Your task to perform on an android device: open app "Venmo" (install if not already installed) Image 0: 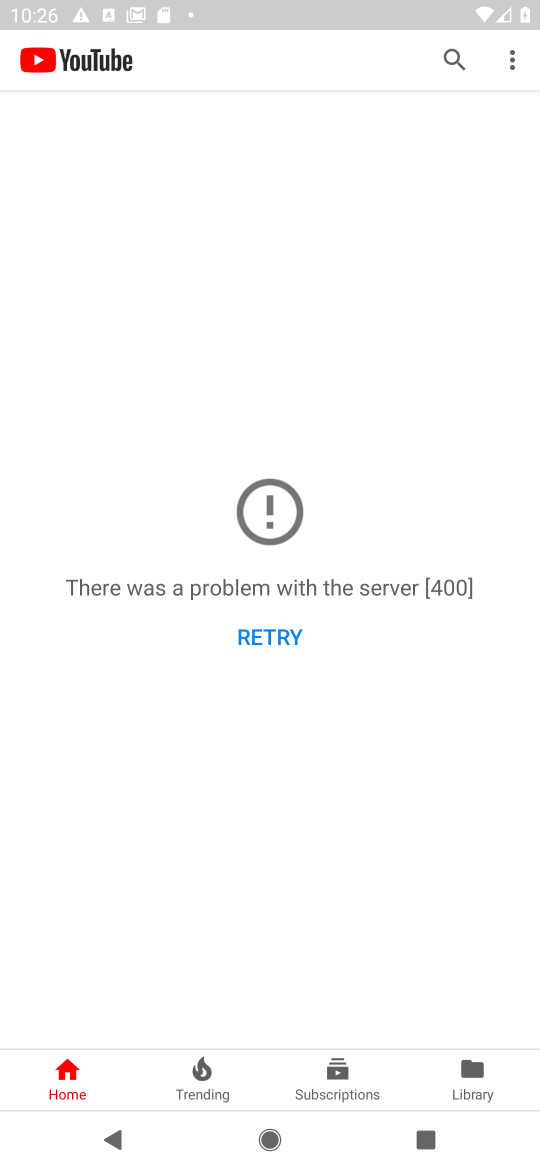
Step 0: press home button
Your task to perform on an android device: open app "Venmo" (install if not already installed) Image 1: 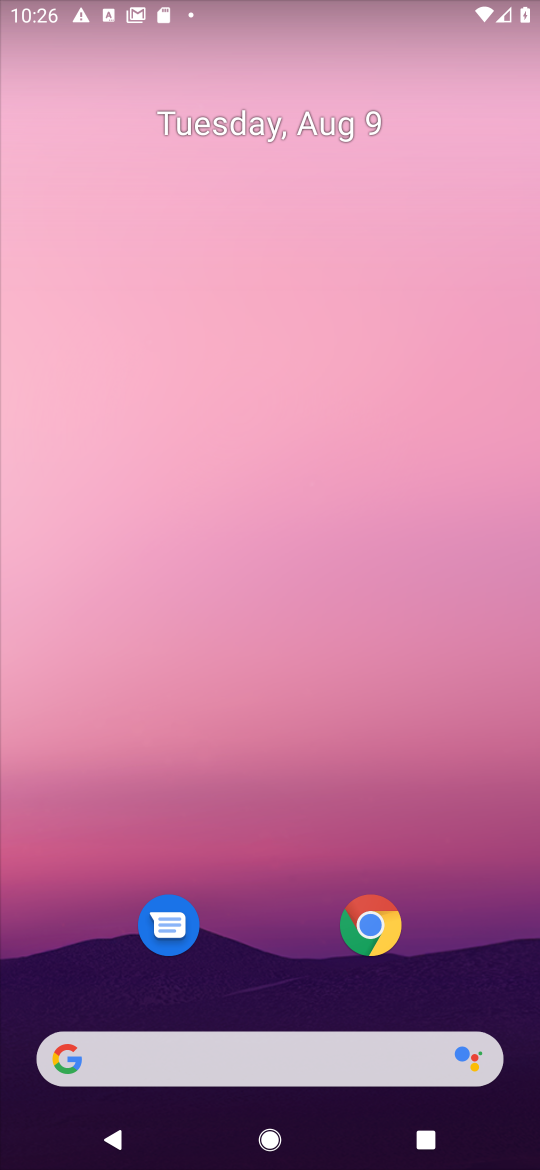
Step 1: drag from (260, 973) to (256, 158)
Your task to perform on an android device: open app "Venmo" (install if not already installed) Image 2: 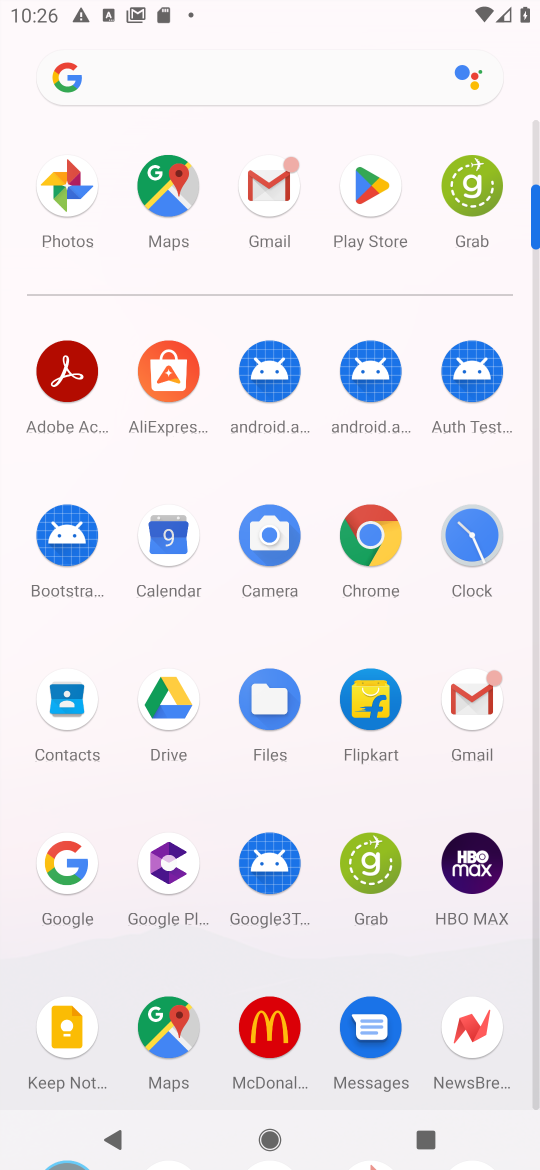
Step 2: click (371, 192)
Your task to perform on an android device: open app "Venmo" (install if not already installed) Image 3: 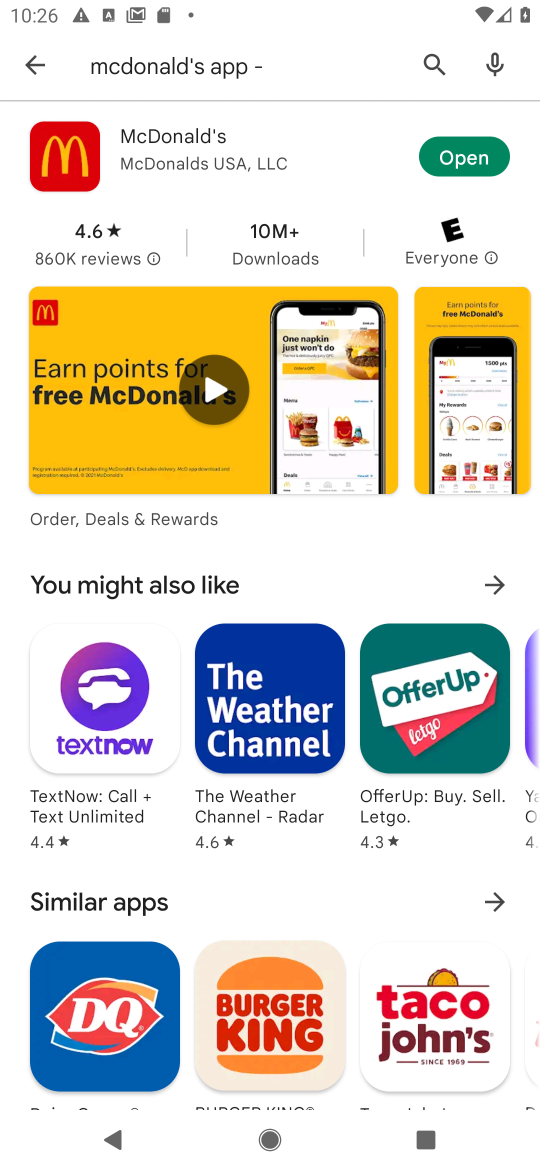
Step 3: click (34, 72)
Your task to perform on an android device: open app "Venmo" (install if not already installed) Image 4: 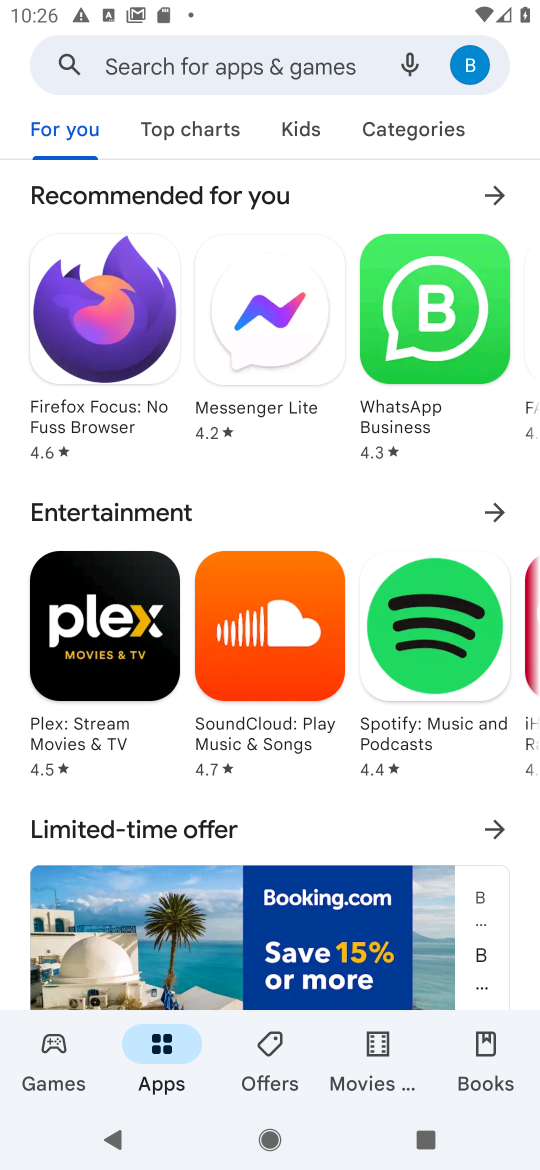
Step 4: click (215, 72)
Your task to perform on an android device: open app "Venmo" (install if not already installed) Image 5: 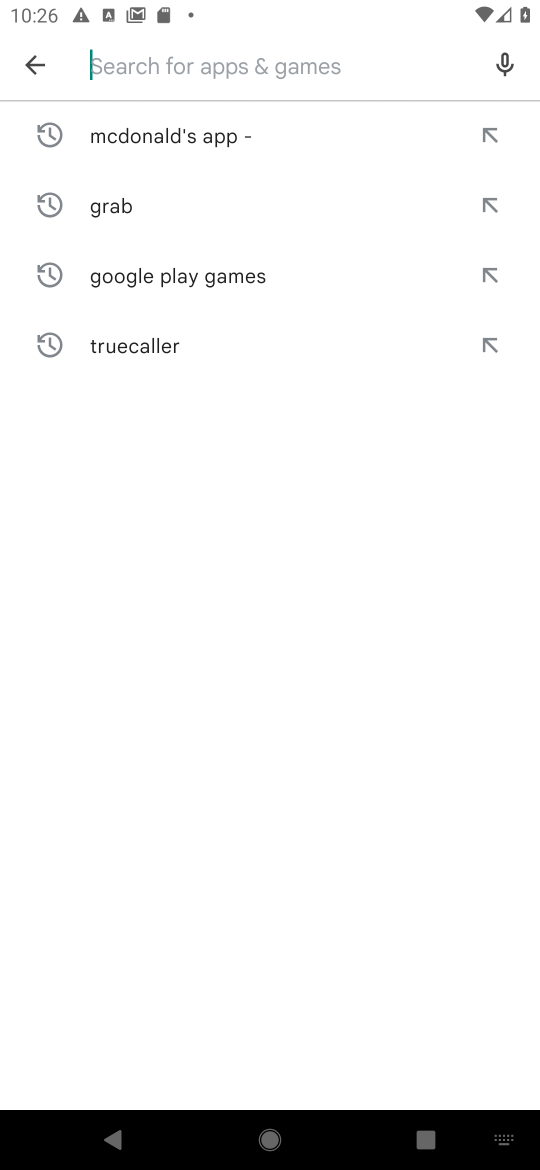
Step 5: type "Venmo"
Your task to perform on an android device: open app "Venmo" (install if not already installed) Image 6: 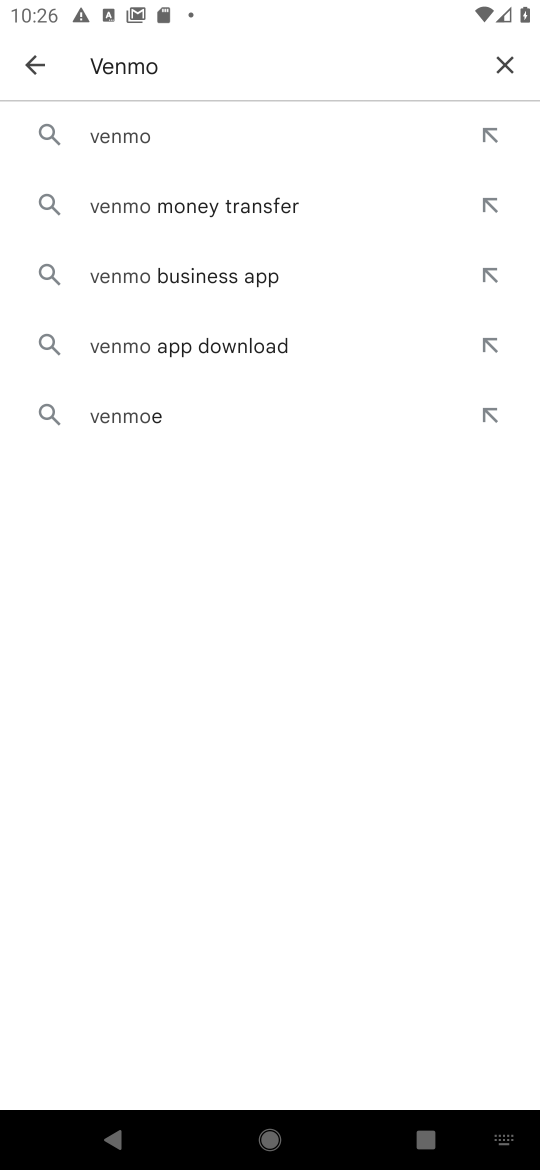
Step 6: click (138, 139)
Your task to perform on an android device: open app "Venmo" (install if not already installed) Image 7: 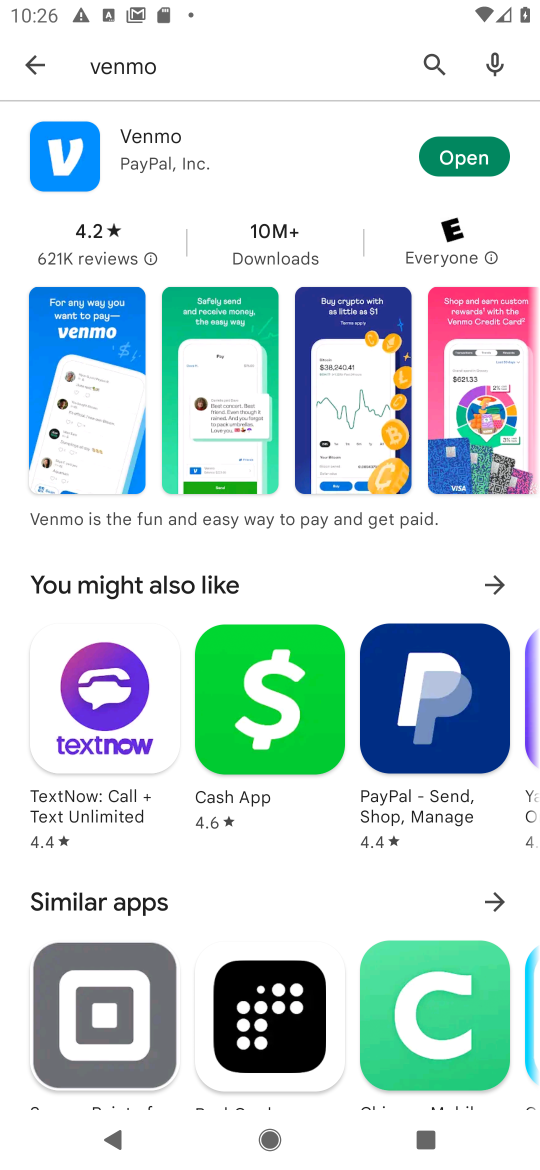
Step 7: click (456, 173)
Your task to perform on an android device: open app "Venmo" (install if not already installed) Image 8: 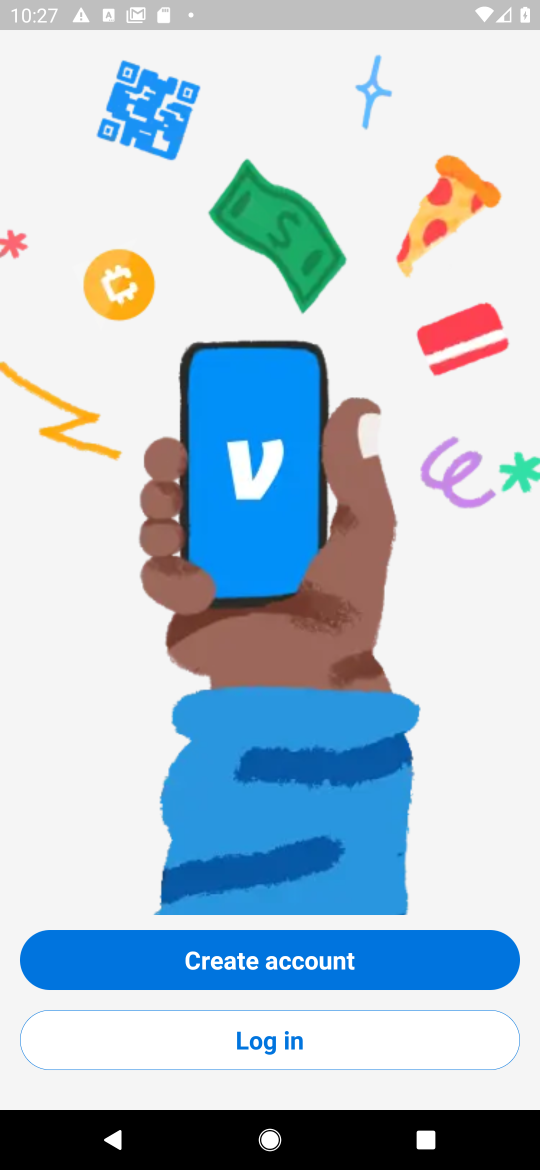
Step 8: task complete